Your task to perform on an android device: Go to eBay Image 0: 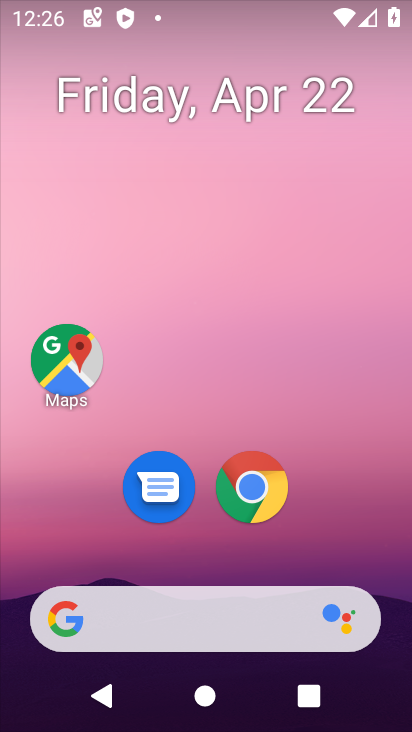
Step 0: click (205, 607)
Your task to perform on an android device: Go to eBay Image 1: 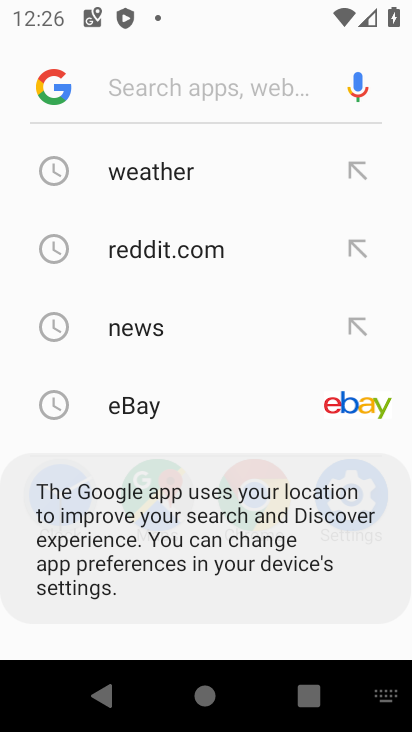
Step 1: click (130, 395)
Your task to perform on an android device: Go to eBay Image 2: 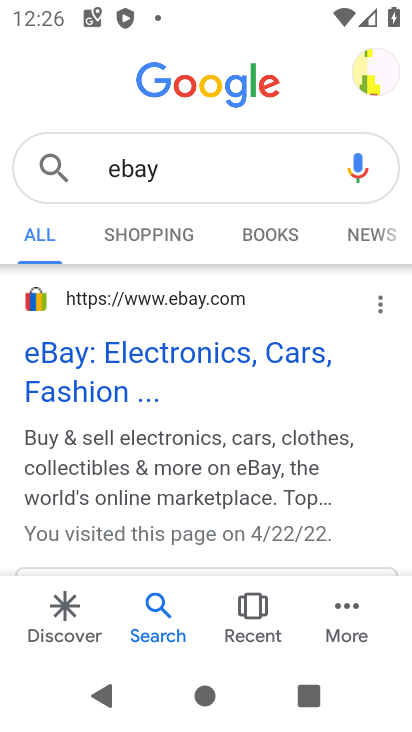
Step 2: click (93, 344)
Your task to perform on an android device: Go to eBay Image 3: 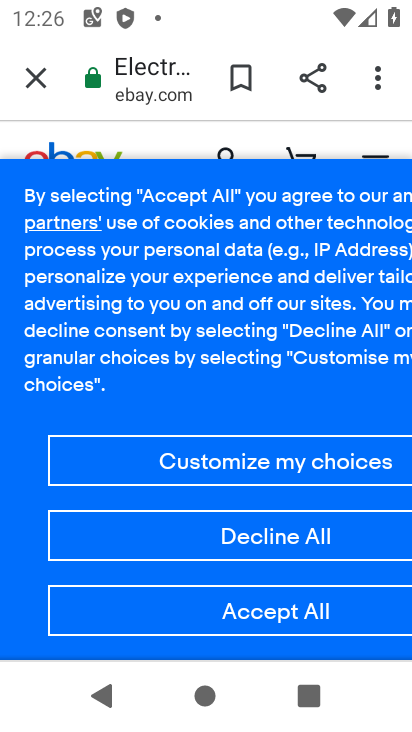
Step 3: task complete